Your task to perform on an android device: change text size in settings app Image 0: 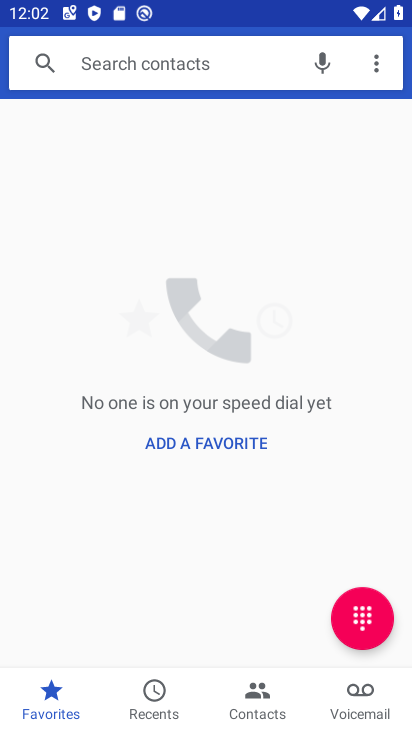
Step 0: press home button
Your task to perform on an android device: change text size in settings app Image 1: 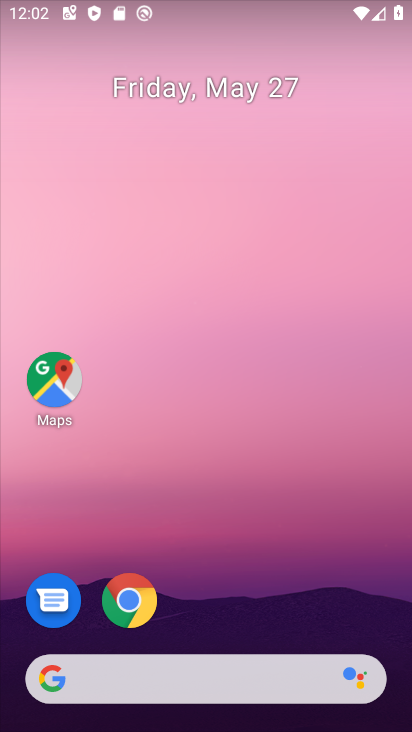
Step 1: drag from (201, 639) to (234, 154)
Your task to perform on an android device: change text size in settings app Image 2: 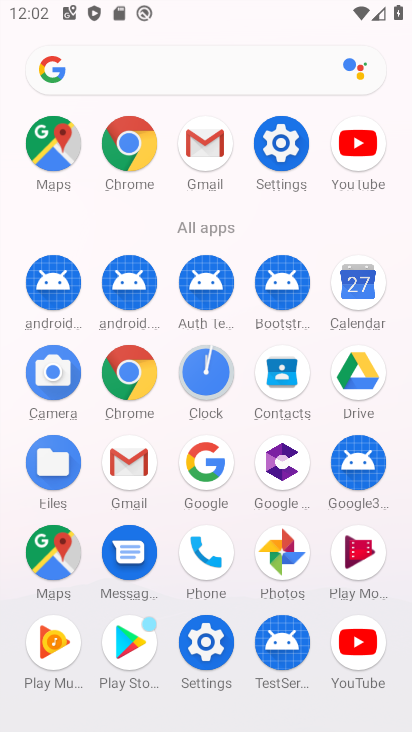
Step 2: click (273, 164)
Your task to perform on an android device: change text size in settings app Image 3: 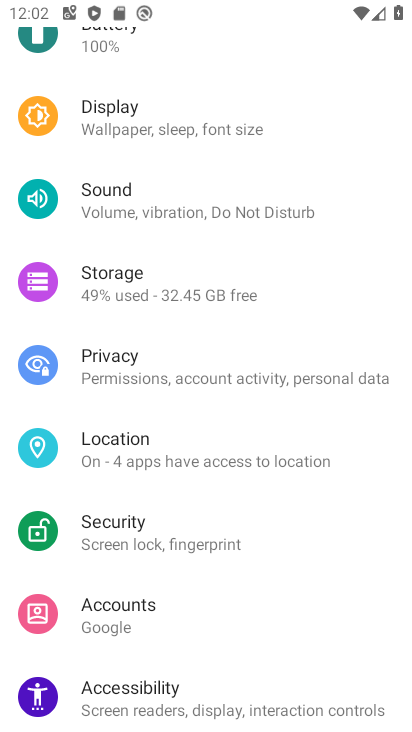
Step 3: click (280, 144)
Your task to perform on an android device: change text size in settings app Image 4: 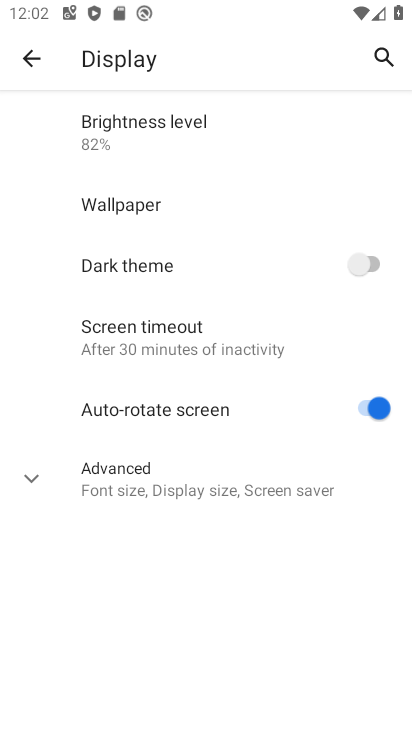
Step 4: click (116, 483)
Your task to perform on an android device: change text size in settings app Image 5: 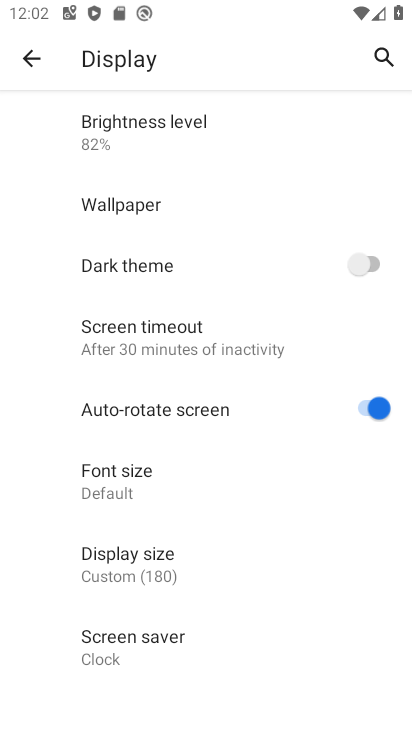
Step 5: click (141, 492)
Your task to perform on an android device: change text size in settings app Image 6: 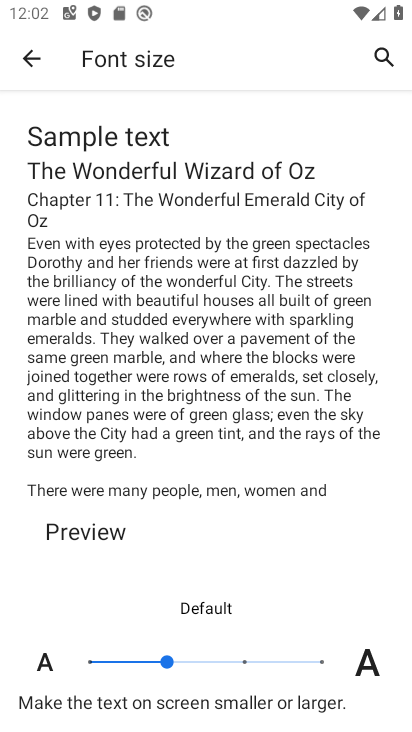
Step 6: click (85, 660)
Your task to perform on an android device: change text size in settings app Image 7: 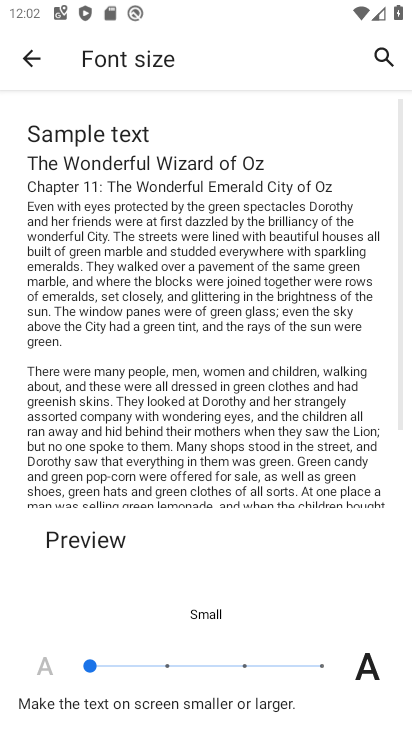
Step 7: task complete